Your task to perform on an android device: Go to eBay Image 0: 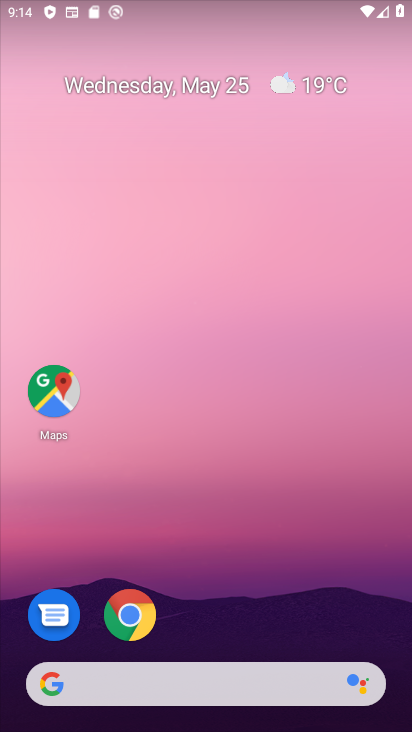
Step 0: drag from (268, 727) to (140, 17)
Your task to perform on an android device: Go to eBay Image 1: 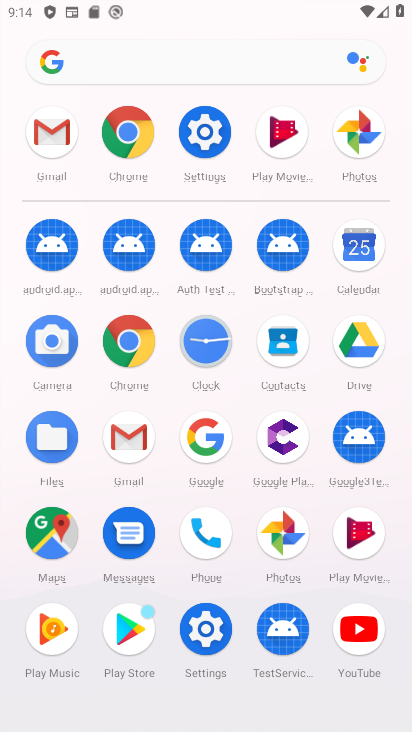
Step 1: click (135, 120)
Your task to perform on an android device: Go to eBay Image 2: 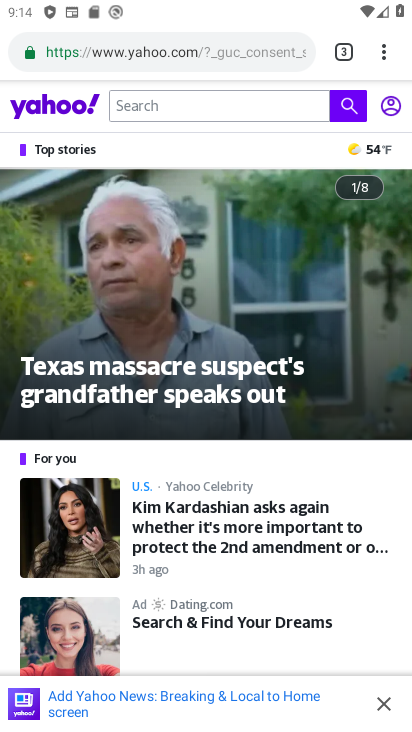
Step 2: click (347, 50)
Your task to perform on an android device: Go to eBay Image 3: 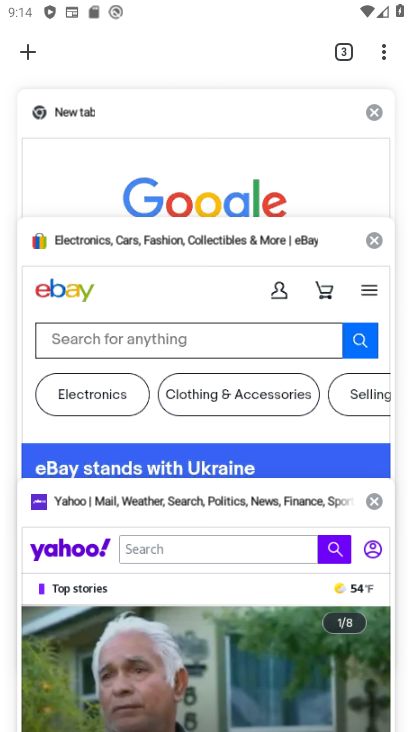
Step 3: click (33, 43)
Your task to perform on an android device: Go to eBay Image 4: 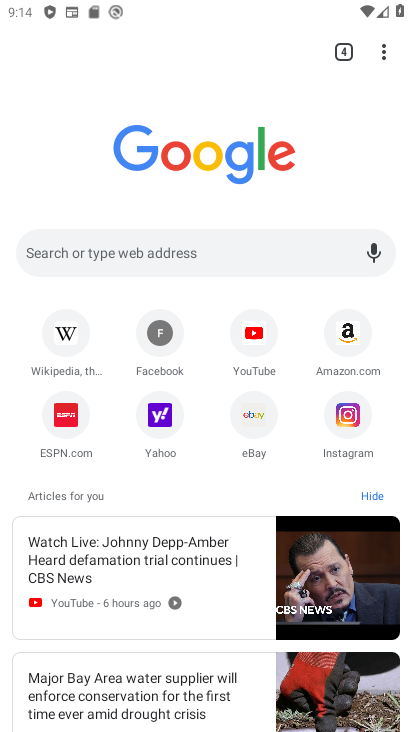
Step 4: click (242, 421)
Your task to perform on an android device: Go to eBay Image 5: 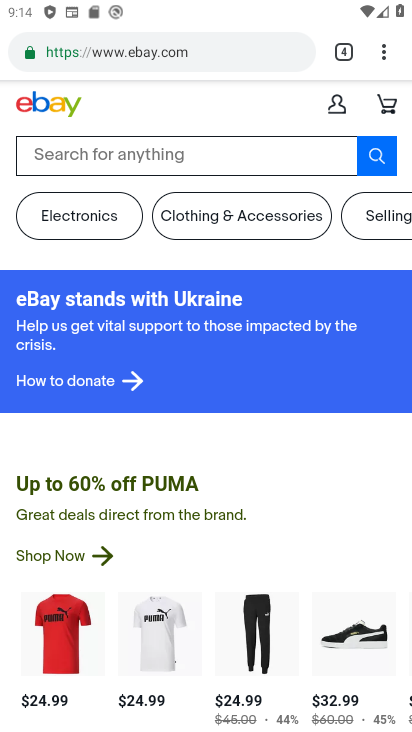
Step 5: task complete